Your task to perform on an android device: Open settings Image 0: 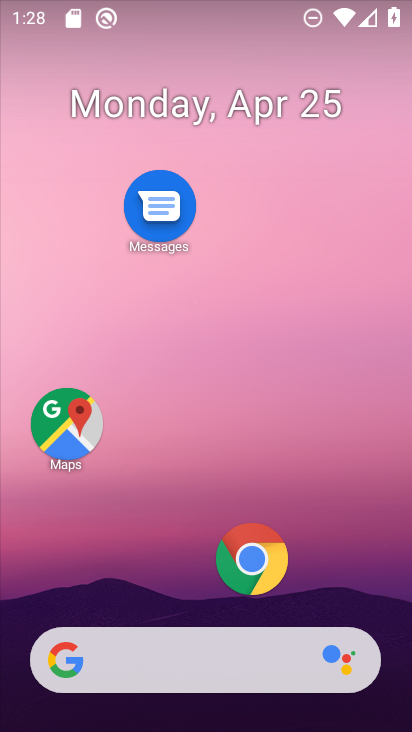
Step 0: drag from (197, 468) to (280, 95)
Your task to perform on an android device: Open settings Image 1: 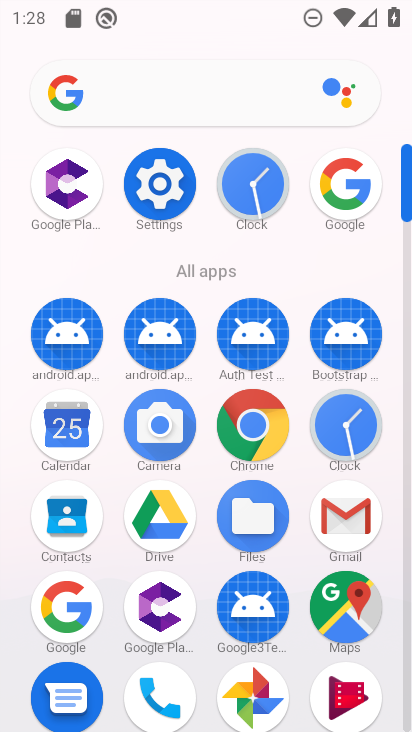
Step 1: click (159, 180)
Your task to perform on an android device: Open settings Image 2: 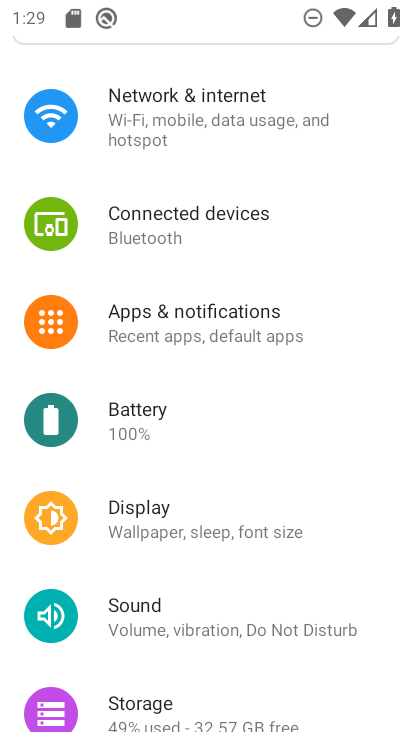
Step 2: task complete